Your task to perform on an android device: Clear the cart on ebay.com. Search for corsair k70 on ebay.com, select the first entry, and add it to the cart. Image 0: 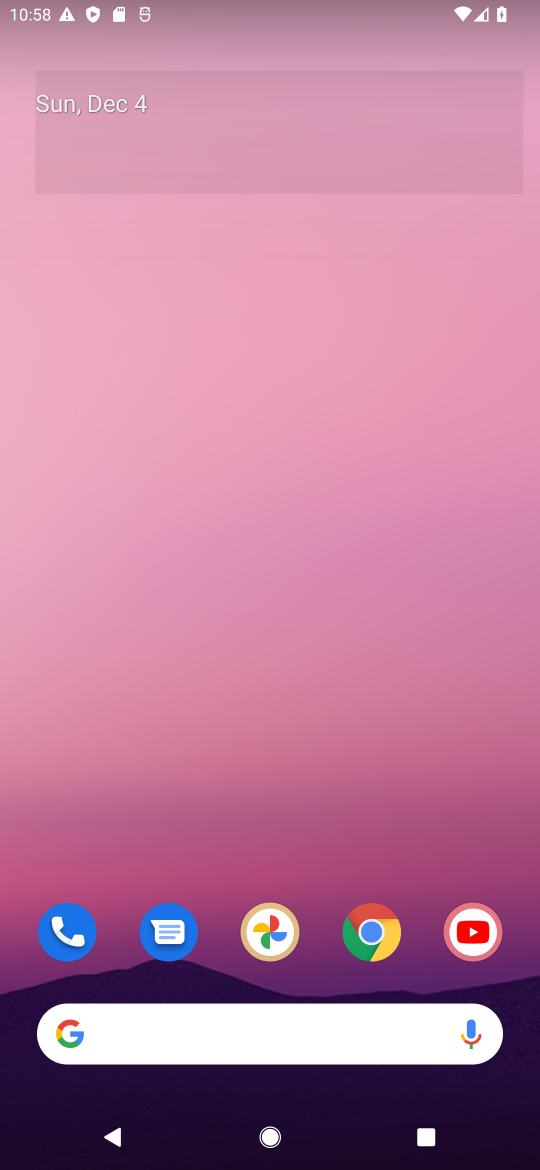
Step 0: click (378, 939)
Your task to perform on an android device: Clear the cart on ebay.com. Search for corsair k70 on ebay.com, select the first entry, and add it to the cart. Image 1: 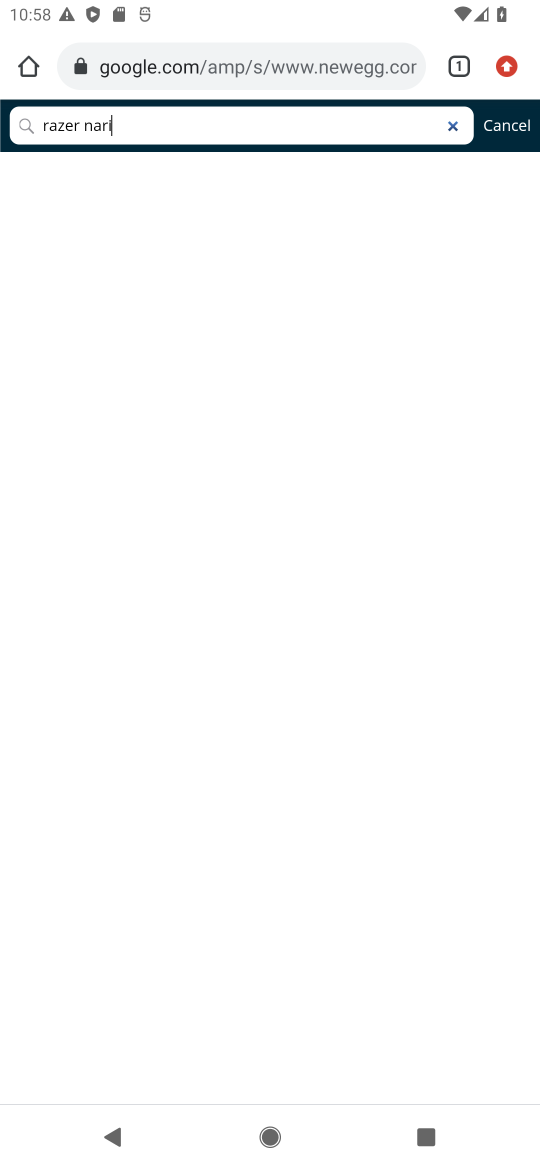
Step 1: click (301, 60)
Your task to perform on an android device: Clear the cart on ebay.com. Search for corsair k70 on ebay.com, select the first entry, and add it to the cart. Image 2: 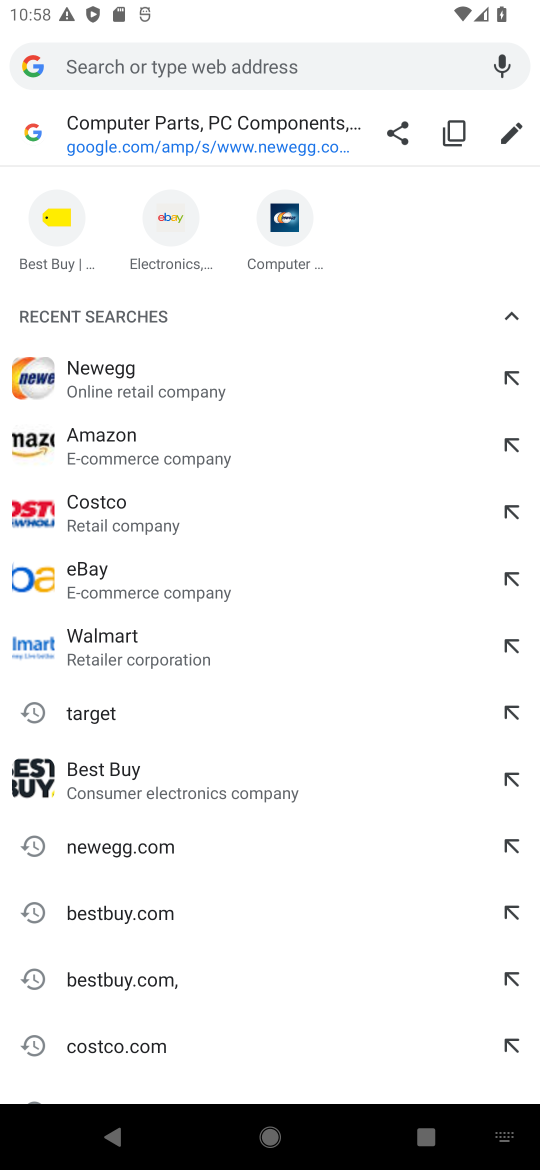
Step 2: click (149, 589)
Your task to perform on an android device: Clear the cart on ebay.com. Search for corsair k70 on ebay.com, select the first entry, and add it to the cart. Image 3: 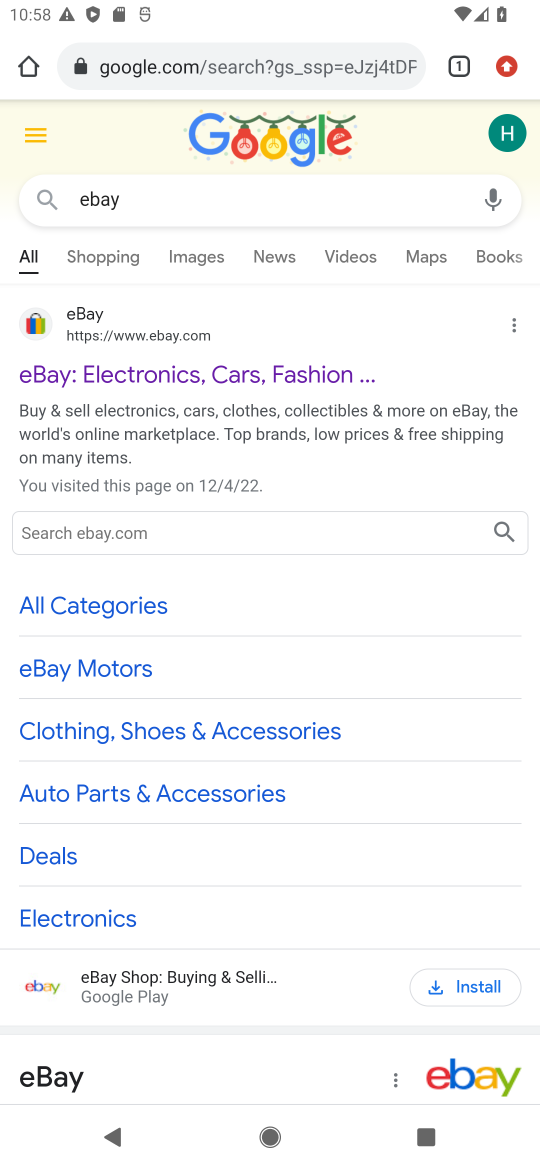
Step 3: click (176, 371)
Your task to perform on an android device: Clear the cart on ebay.com. Search for corsair k70 on ebay.com, select the first entry, and add it to the cart. Image 4: 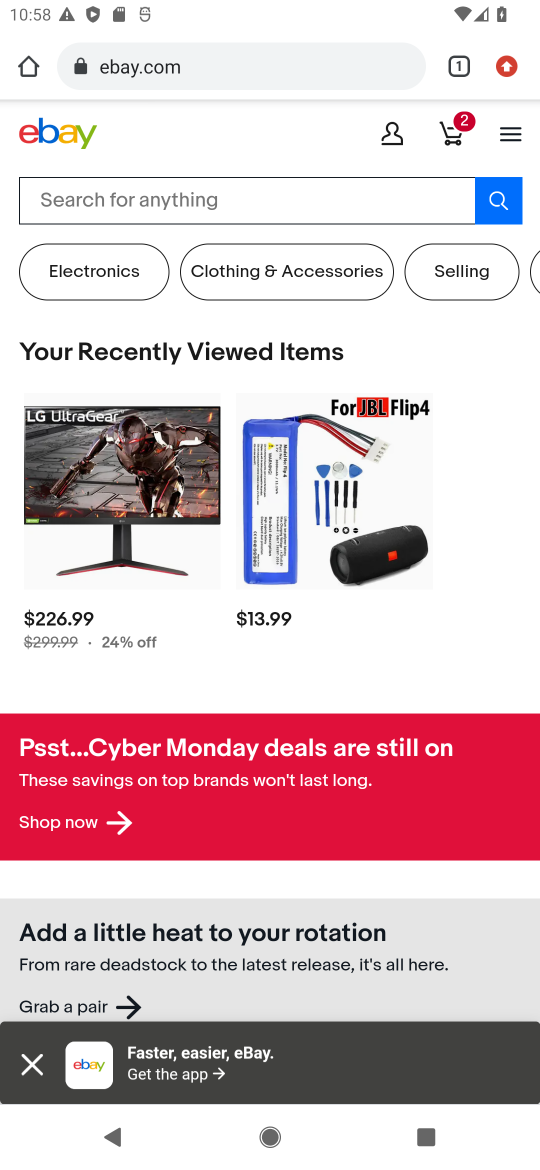
Step 4: click (362, 198)
Your task to perform on an android device: Clear the cart on ebay.com. Search for corsair k70 on ebay.com, select the first entry, and add it to the cart. Image 5: 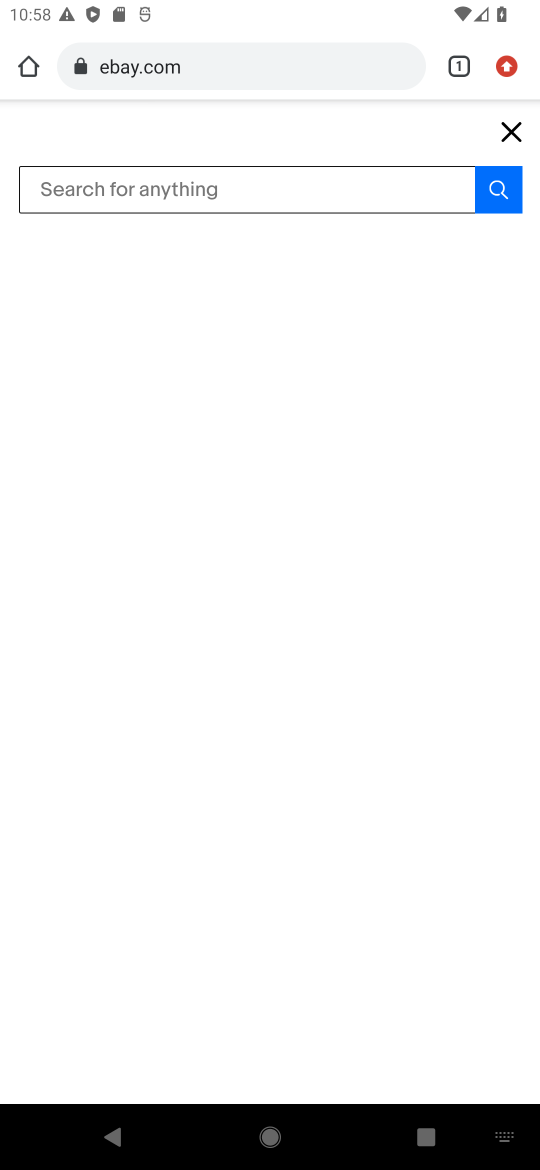
Step 5: type "corsair k70"
Your task to perform on an android device: Clear the cart on ebay.com. Search for corsair k70 on ebay.com, select the first entry, and add it to the cart. Image 6: 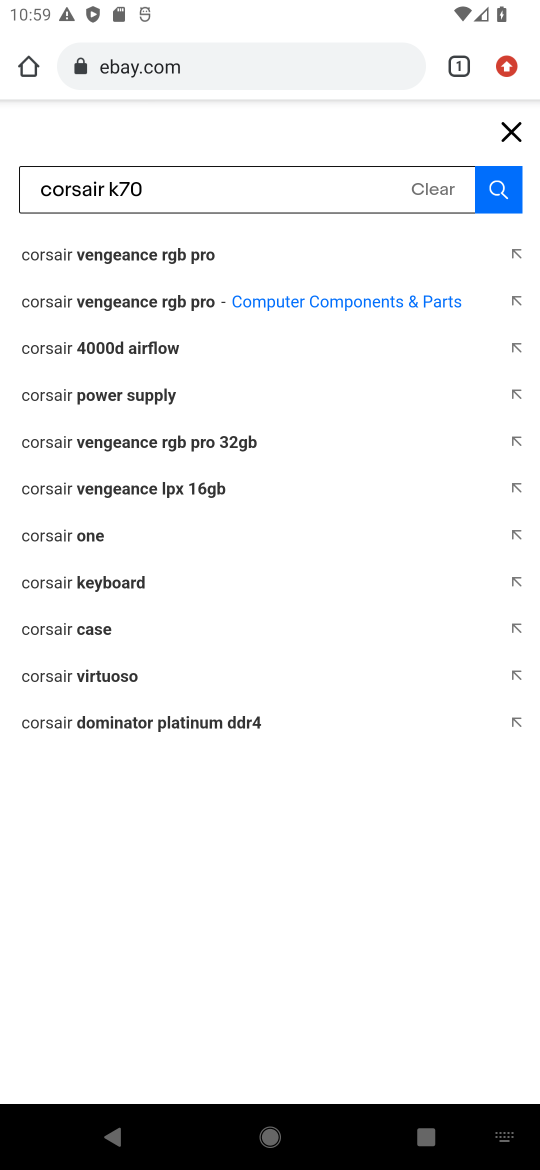
Step 6: click (94, 253)
Your task to perform on an android device: Clear the cart on ebay.com. Search for corsair k70 on ebay.com, select the first entry, and add it to the cart. Image 7: 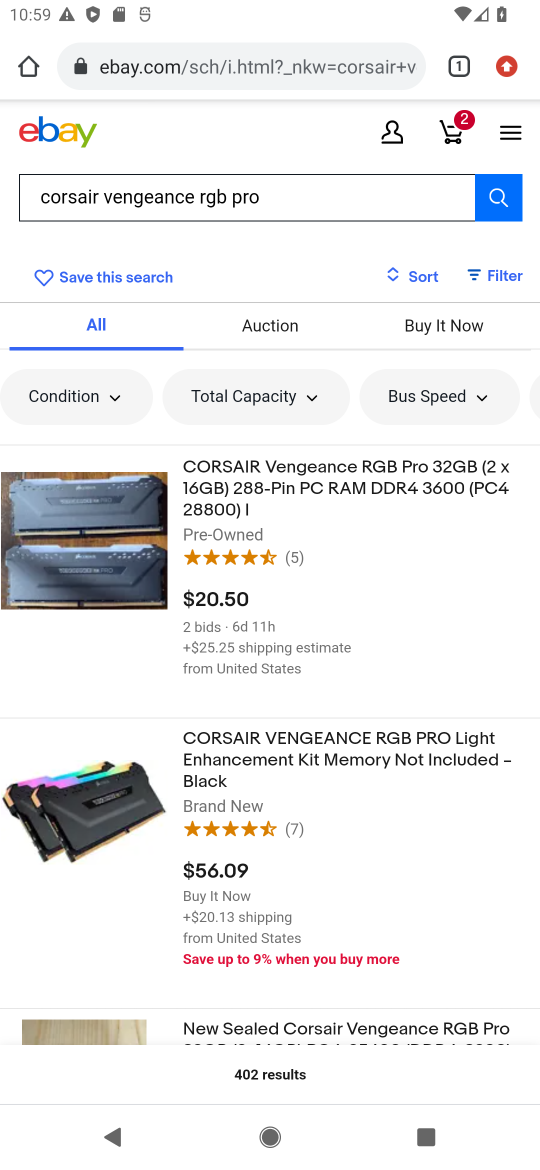
Step 7: click (290, 525)
Your task to perform on an android device: Clear the cart on ebay.com. Search for corsair k70 on ebay.com, select the first entry, and add it to the cart. Image 8: 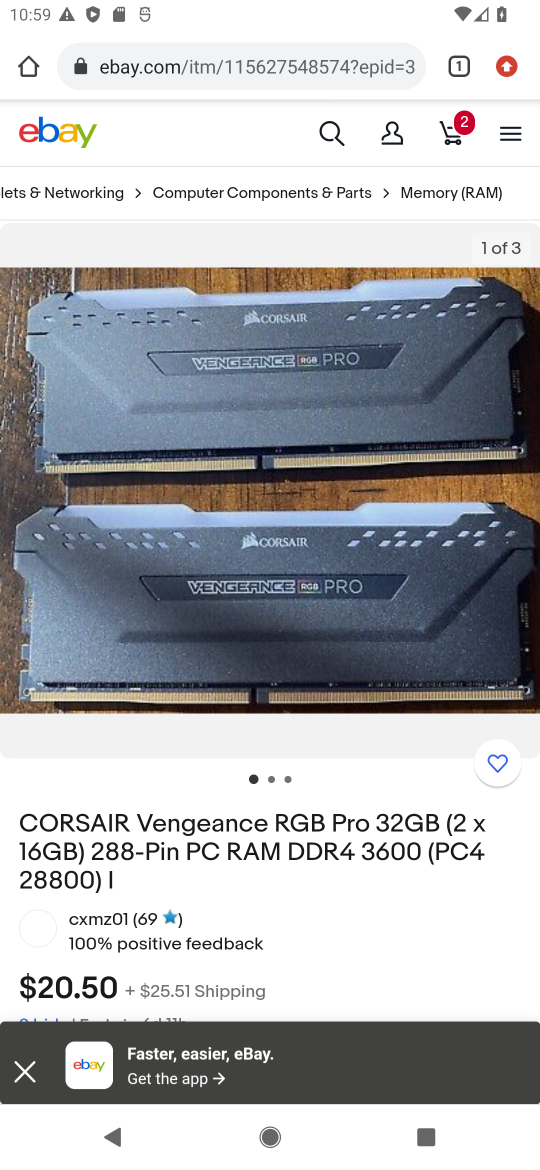
Step 8: drag from (395, 902) to (376, 256)
Your task to perform on an android device: Clear the cart on ebay.com. Search for corsair k70 on ebay.com, select the first entry, and add it to the cart. Image 9: 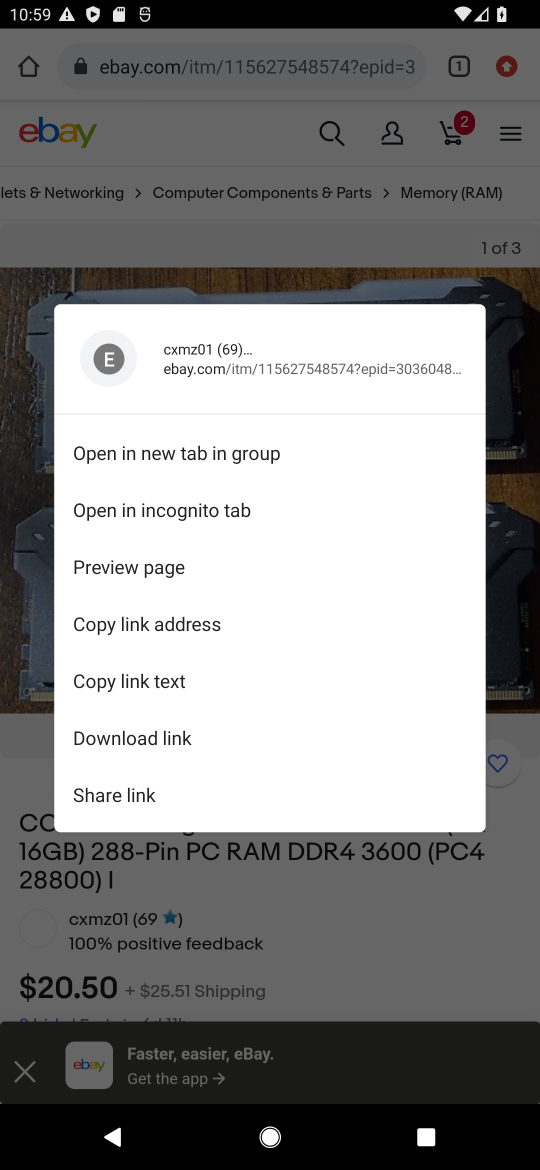
Step 9: click (404, 971)
Your task to perform on an android device: Clear the cart on ebay.com. Search for corsair k70 on ebay.com, select the first entry, and add it to the cart. Image 10: 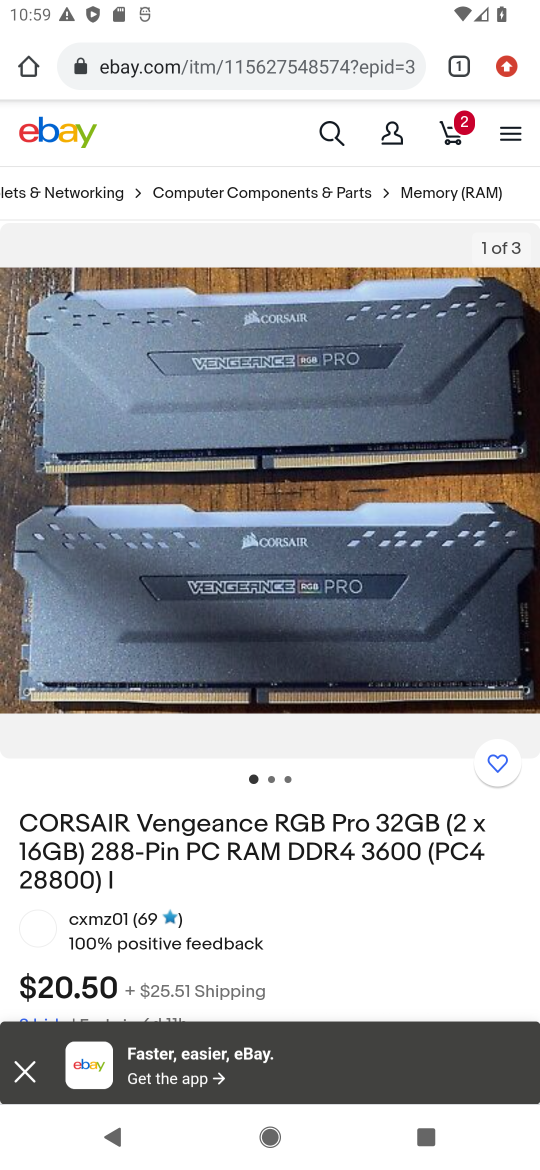
Step 10: drag from (404, 971) to (391, 351)
Your task to perform on an android device: Clear the cart on ebay.com. Search for corsair k70 on ebay.com, select the first entry, and add it to the cart. Image 11: 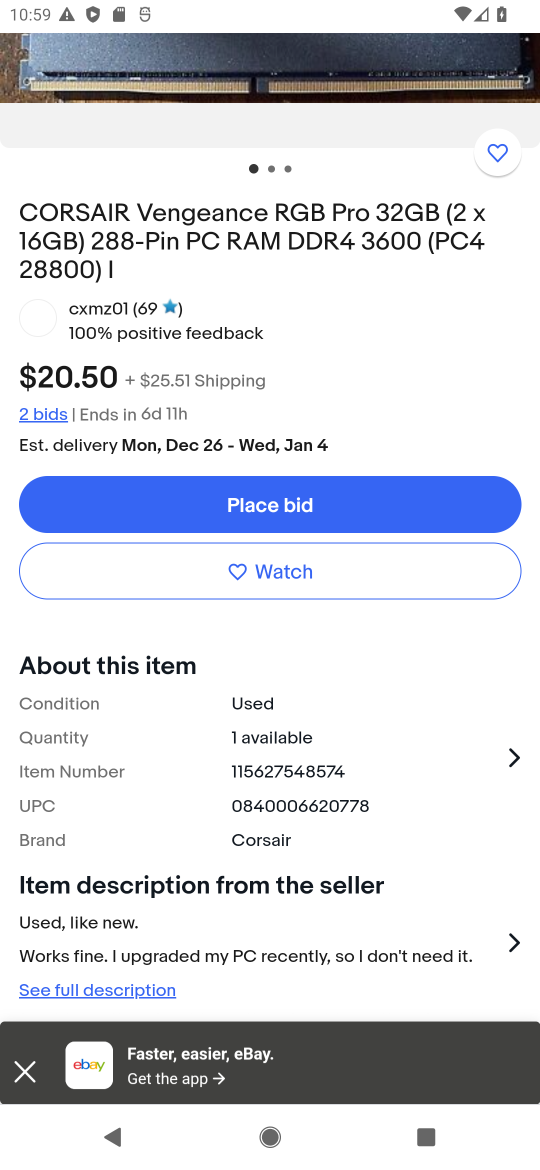
Step 11: click (340, 492)
Your task to perform on an android device: Clear the cart on ebay.com. Search for corsair k70 on ebay.com, select the first entry, and add it to the cart. Image 12: 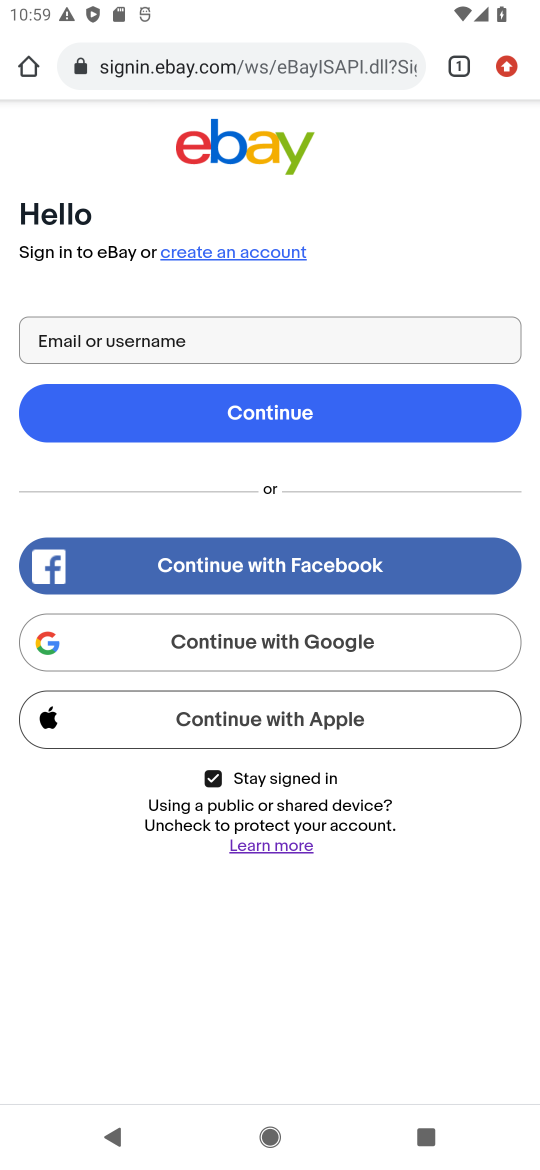
Step 12: task complete